Your task to perform on an android device: Open sound settings Image 0: 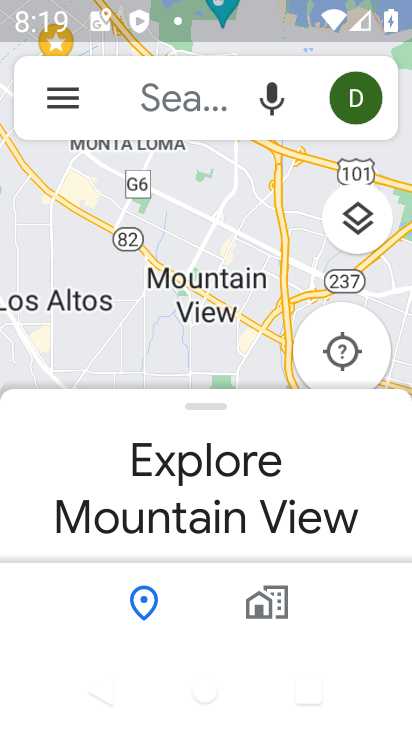
Step 0: press home button
Your task to perform on an android device: Open sound settings Image 1: 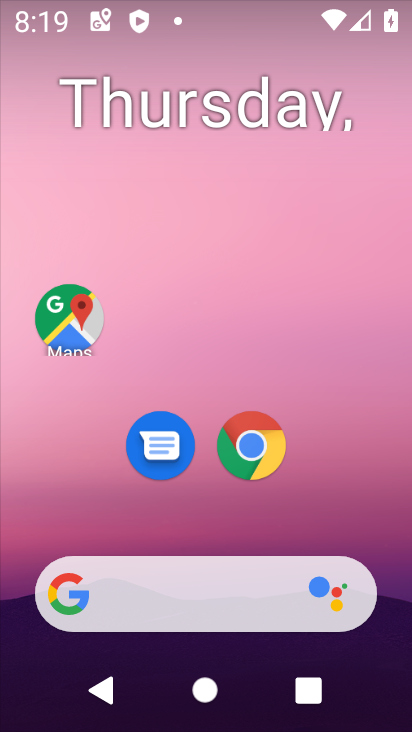
Step 1: drag from (396, 614) to (326, 42)
Your task to perform on an android device: Open sound settings Image 2: 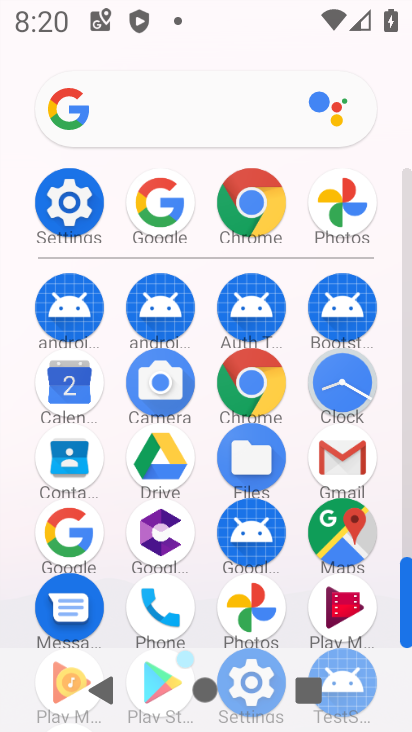
Step 2: click (66, 196)
Your task to perform on an android device: Open sound settings Image 3: 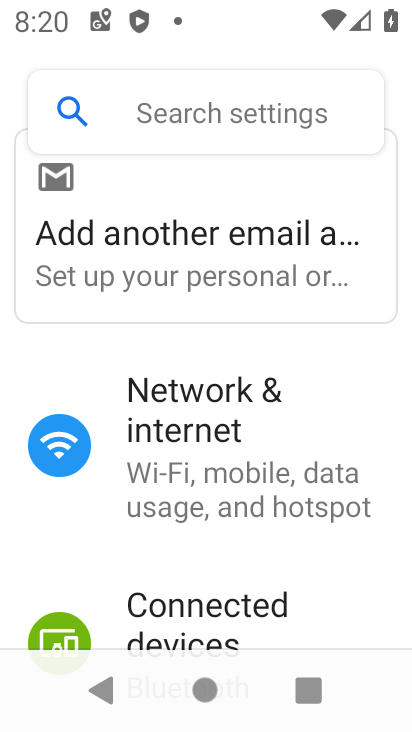
Step 3: drag from (175, 606) to (179, 138)
Your task to perform on an android device: Open sound settings Image 4: 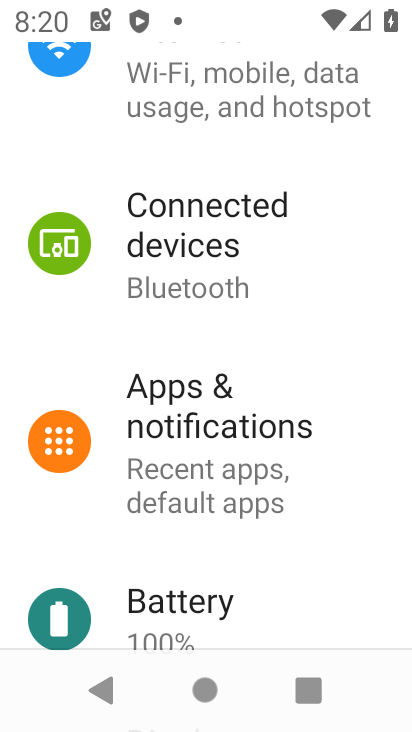
Step 4: drag from (167, 571) to (185, 75)
Your task to perform on an android device: Open sound settings Image 5: 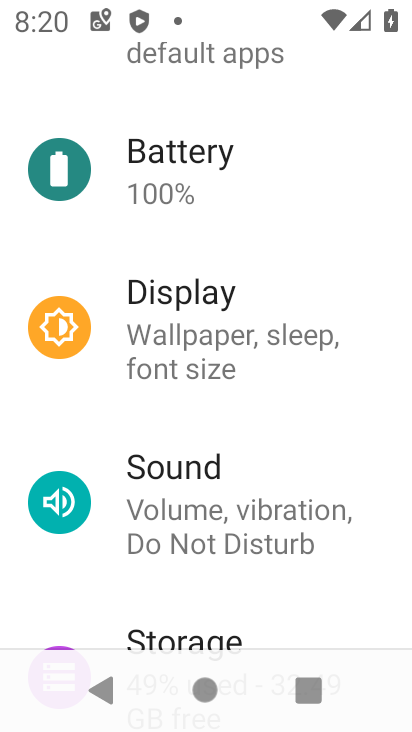
Step 5: click (235, 538)
Your task to perform on an android device: Open sound settings Image 6: 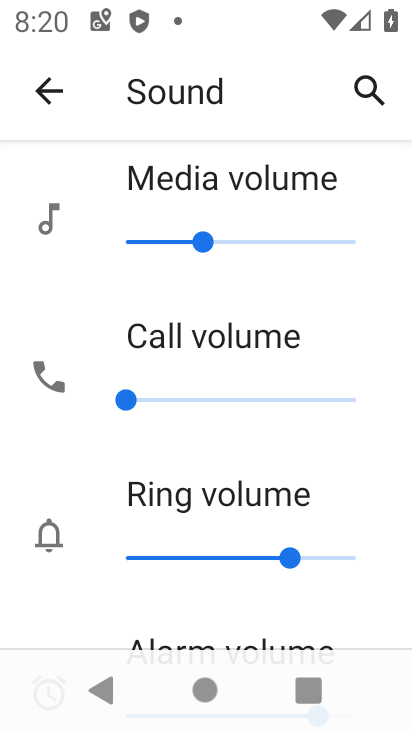
Step 6: task complete